Your task to perform on an android device: Clear the cart on amazon. Image 0: 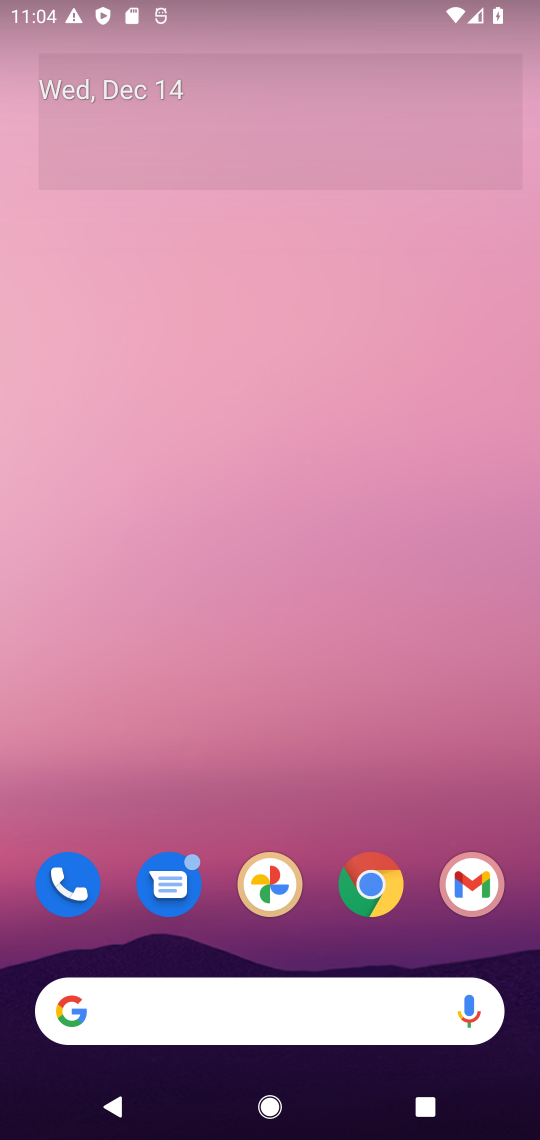
Step 0: click (372, 898)
Your task to perform on an android device: Clear the cart on amazon. Image 1: 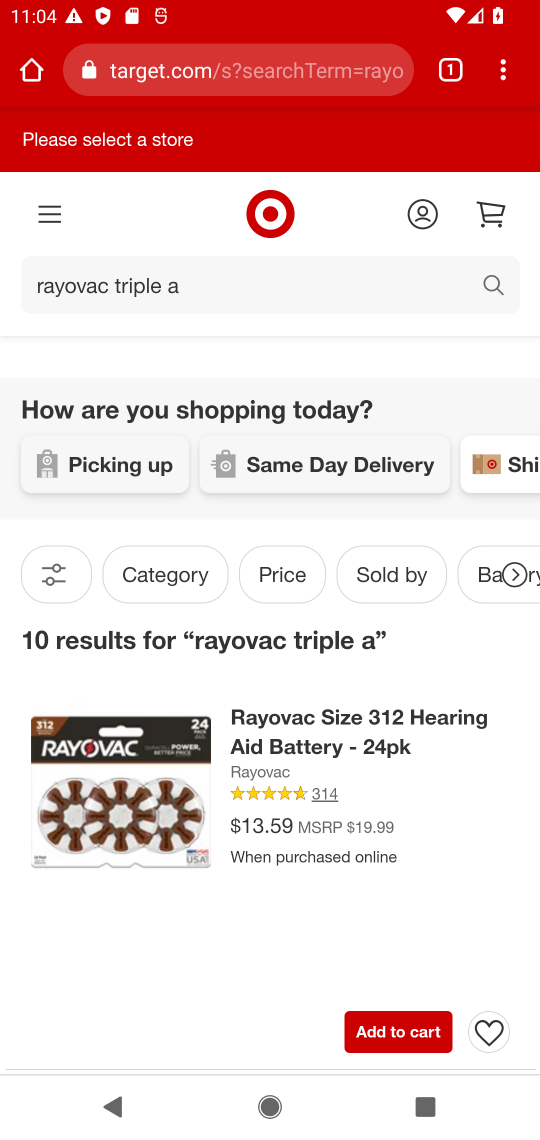
Step 1: click (262, 92)
Your task to perform on an android device: Clear the cart on amazon. Image 2: 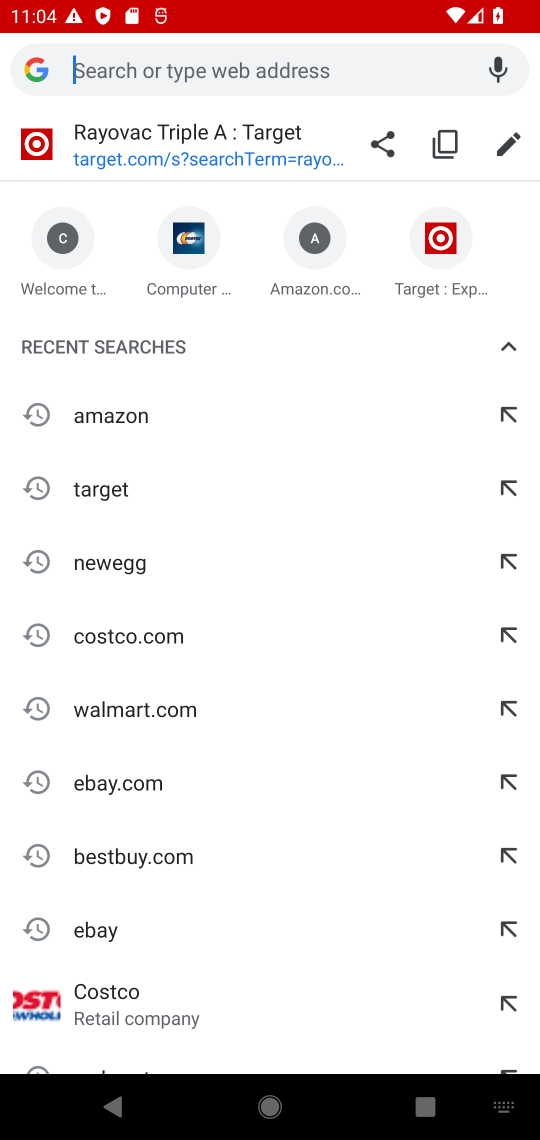
Step 2: type "amazon"
Your task to perform on an android device: Clear the cart on amazon. Image 3: 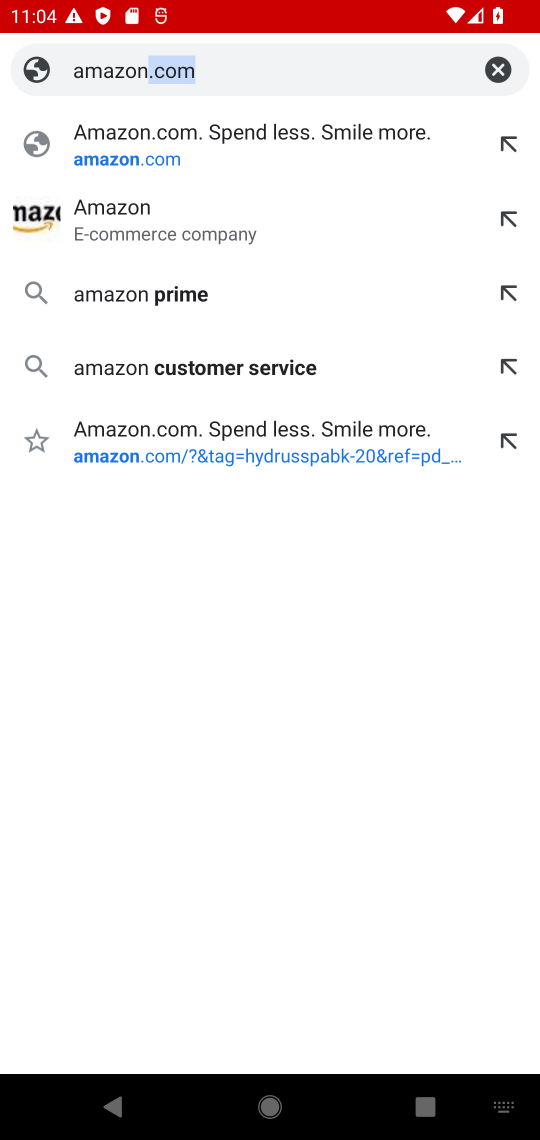
Step 3: click (159, 148)
Your task to perform on an android device: Clear the cart on amazon. Image 4: 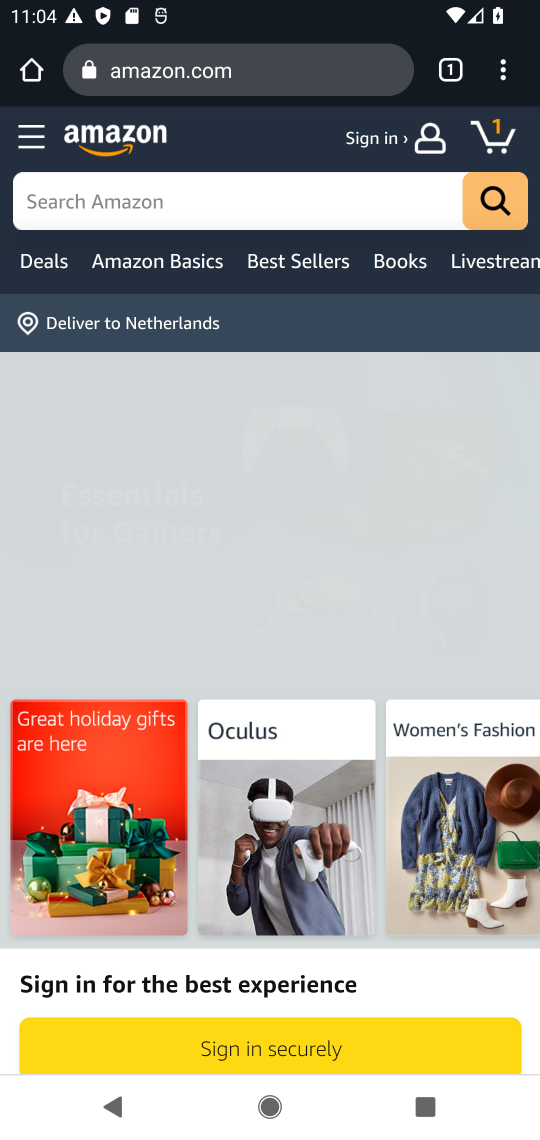
Step 4: click (504, 147)
Your task to perform on an android device: Clear the cart on amazon. Image 5: 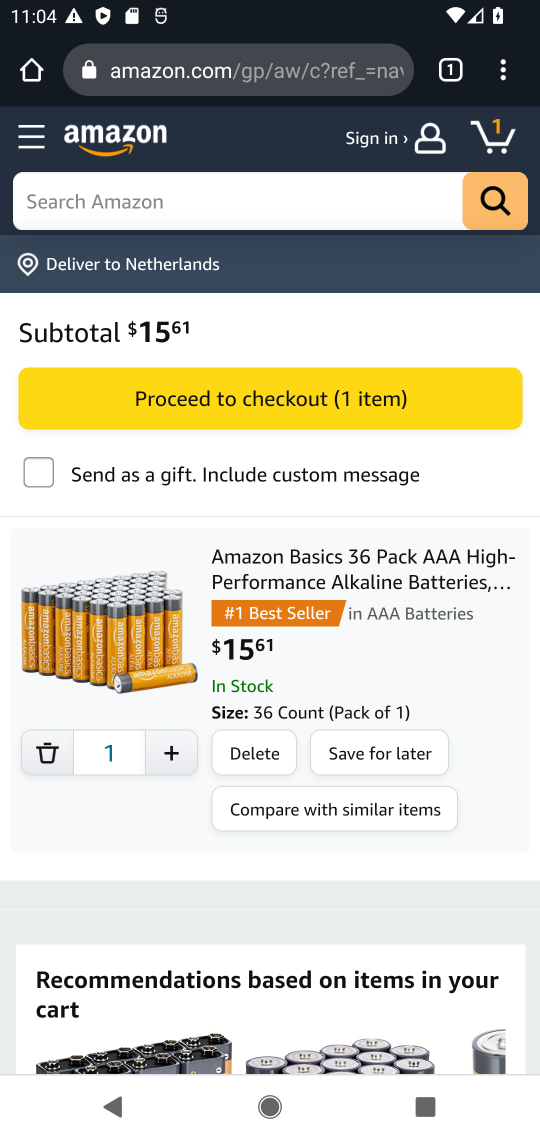
Step 5: click (47, 763)
Your task to perform on an android device: Clear the cart on amazon. Image 6: 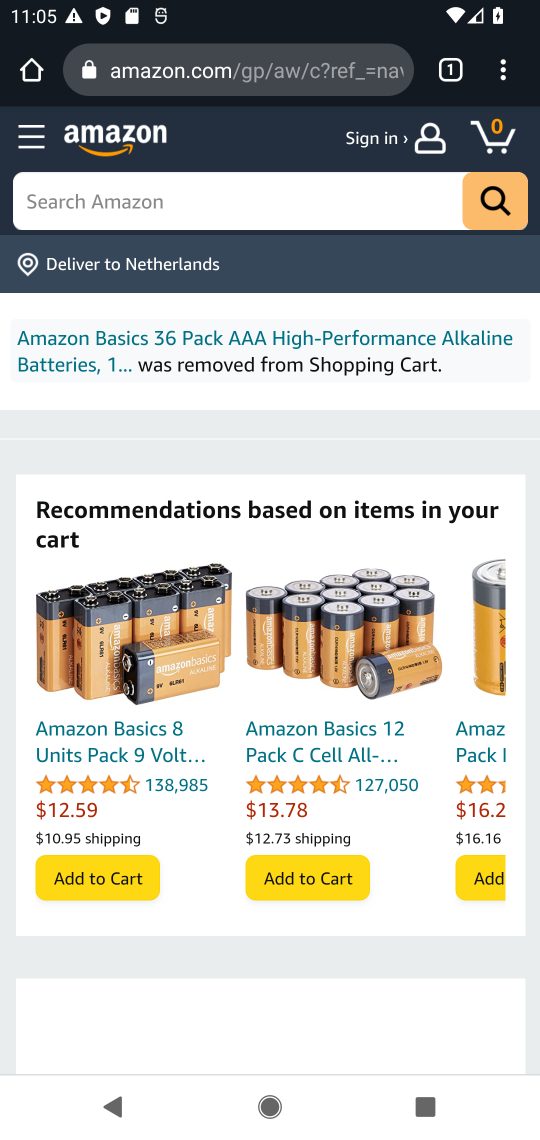
Step 6: task complete